Your task to perform on an android device: snooze an email in the gmail app Image 0: 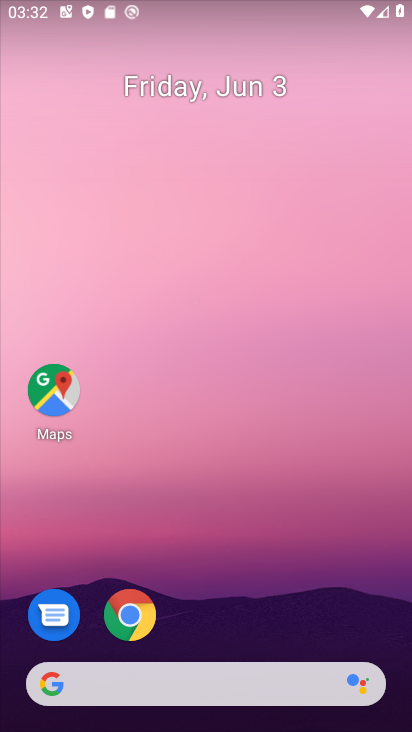
Step 0: drag from (243, 612) to (202, 150)
Your task to perform on an android device: snooze an email in the gmail app Image 1: 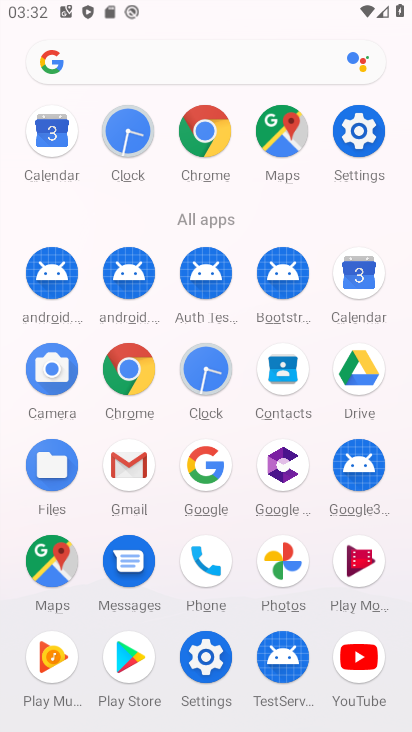
Step 1: click (137, 472)
Your task to perform on an android device: snooze an email in the gmail app Image 2: 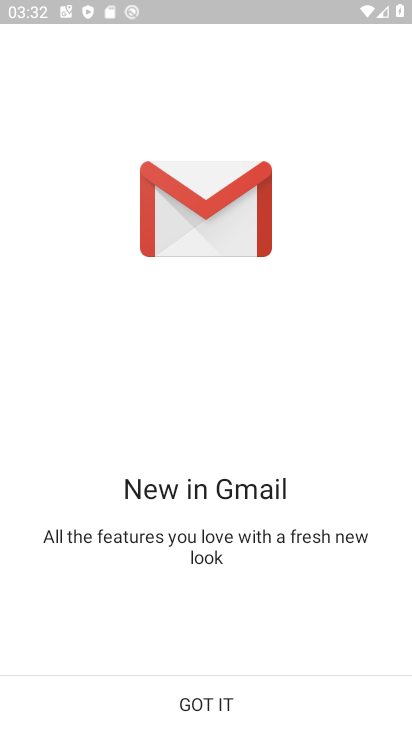
Step 2: click (252, 696)
Your task to perform on an android device: snooze an email in the gmail app Image 3: 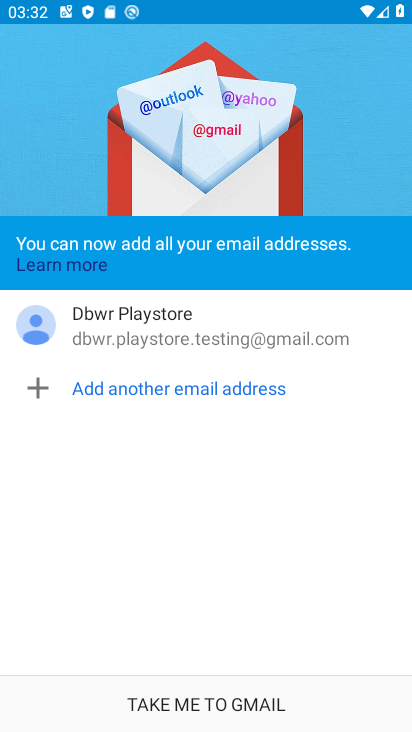
Step 3: click (252, 696)
Your task to perform on an android device: snooze an email in the gmail app Image 4: 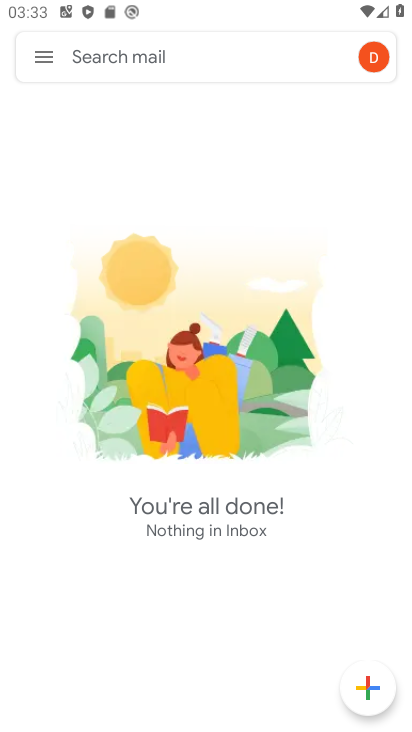
Step 4: task complete